Your task to perform on an android device: Search for sushi restaurants on Maps Image 0: 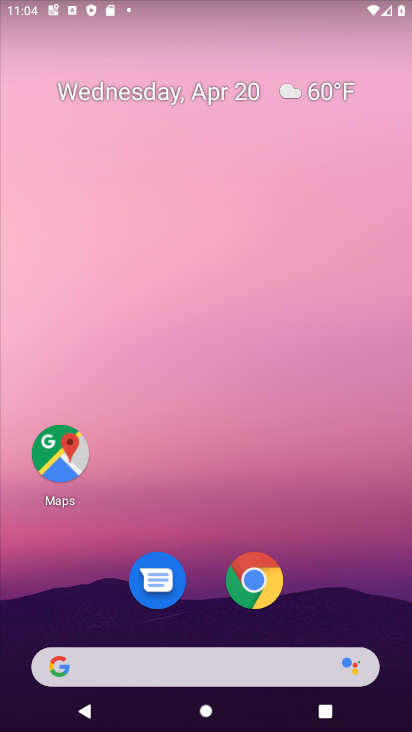
Step 0: click (69, 446)
Your task to perform on an android device: Search for sushi restaurants on Maps Image 1: 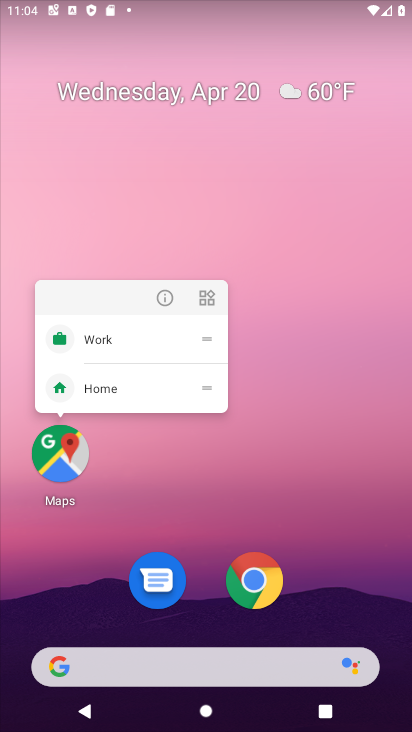
Step 1: click (61, 463)
Your task to perform on an android device: Search for sushi restaurants on Maps Image 2: 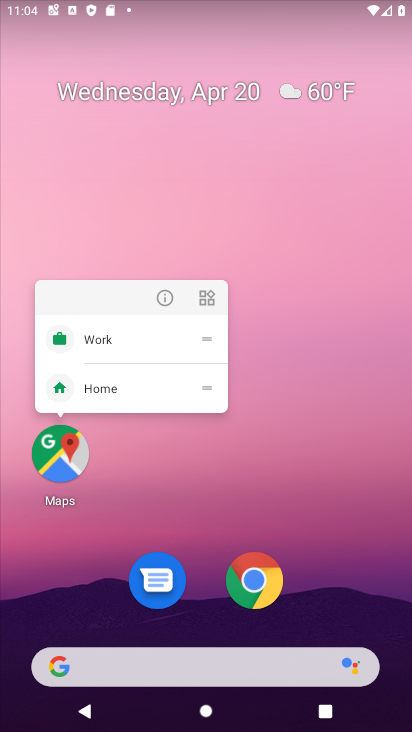
Step 2: click (61, 464)
Your task to perform on an android device: Search for sushi restaurants on Maps Image 3: 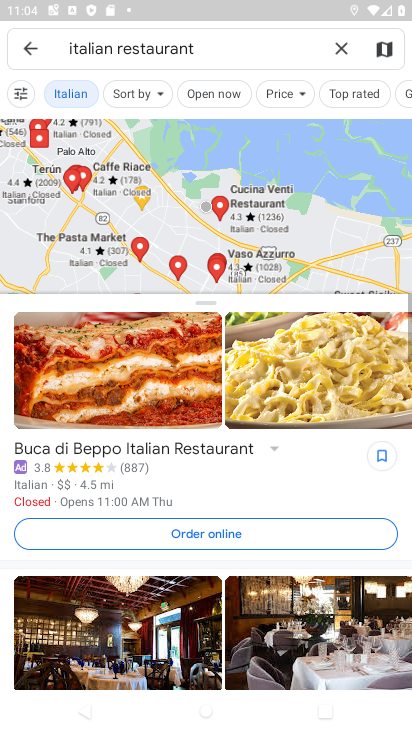
Step 3: click (326, 43)
Your task to perform on an android device: Search for sushi restaurants on Maps Image 4: 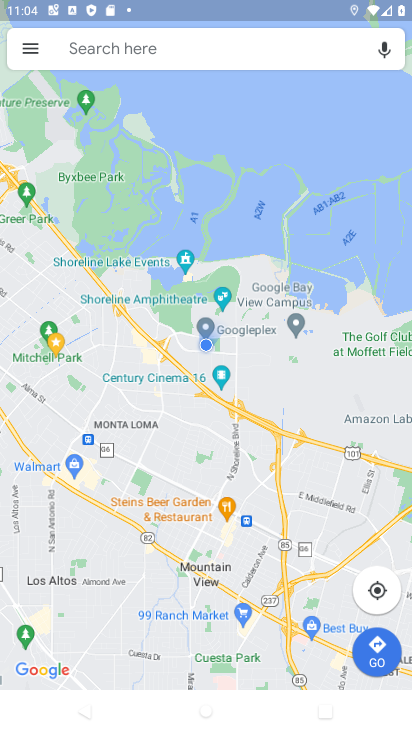
Step 4: click (199, 63)
Your task to perform on an android device: Search for sushi restaurants on Maps Image 5: 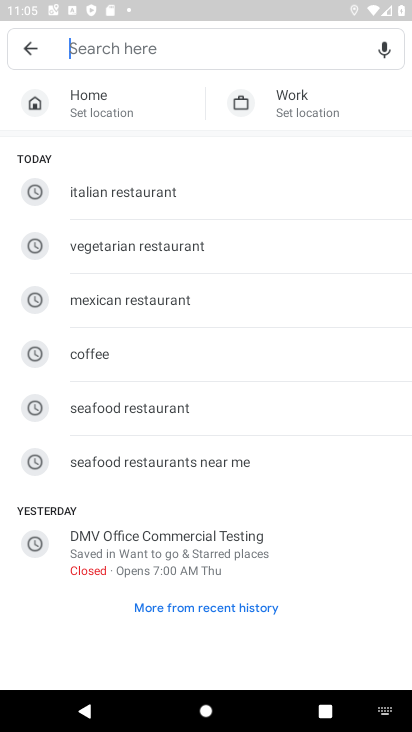
Step 5: type "sushi restaurants"
Your task to perform on an android device: Search for sushi restaurants on Maps Image 6: 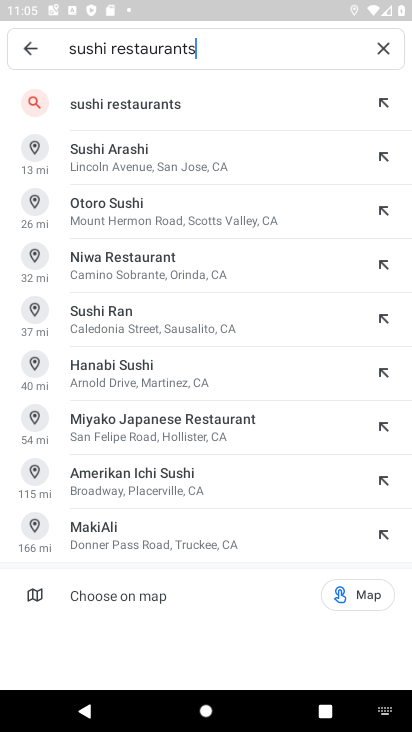
Step 6: click (175, 89)
Your task to perform on an android device: Search for sushi restaurants on Maps Image 7: 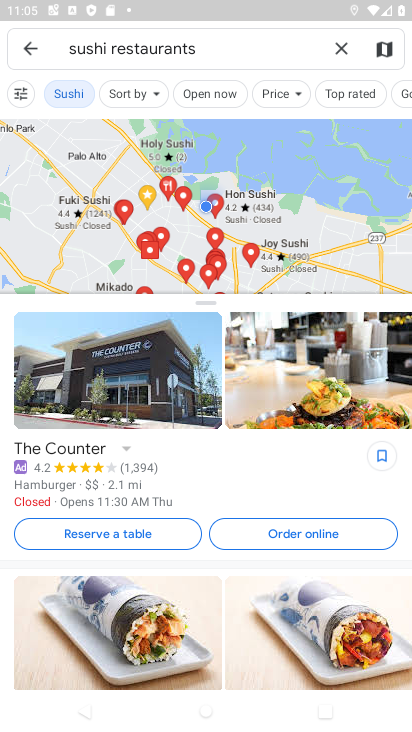
Step 7: task complete